Your task to perform on an android device: Open accessibility settings Image 0: 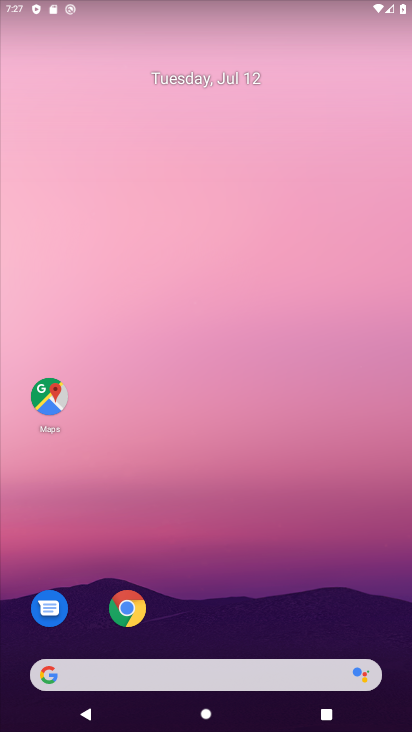
Step 0: drag from (220, 640) to (205, 203)
Your task to perform on an android device: Open accessibility settings Image 1: 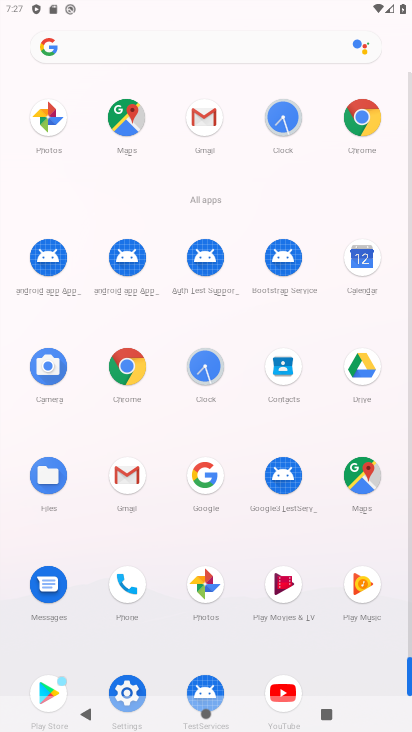
Step 1: click (119, 678)
Your task to perform on an android device: Open accessibility settings Image 2: 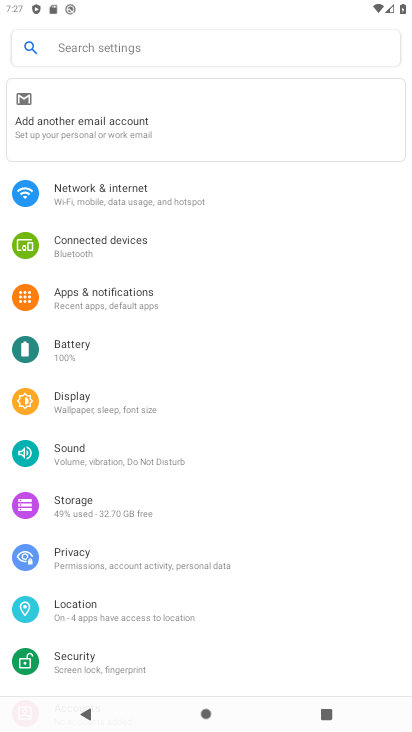
Step 2: drag from (205, 585) to (182, 211)
Your task to perform on an android device: Open accessibility settings Image 3: 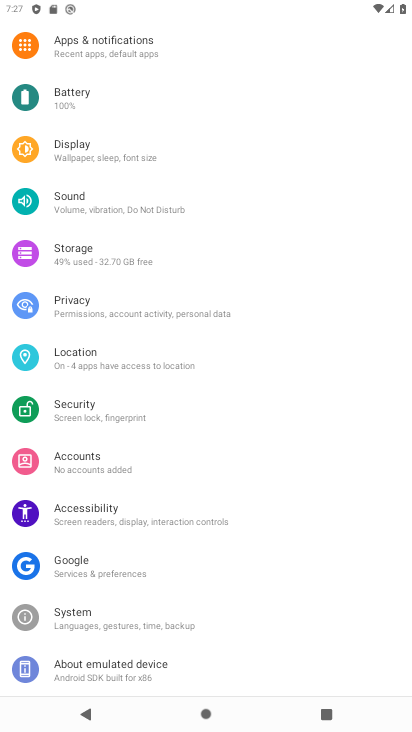
Step 3: click (124, 504)
Your task to perform on an android device: Open accessibility settings Image 4: 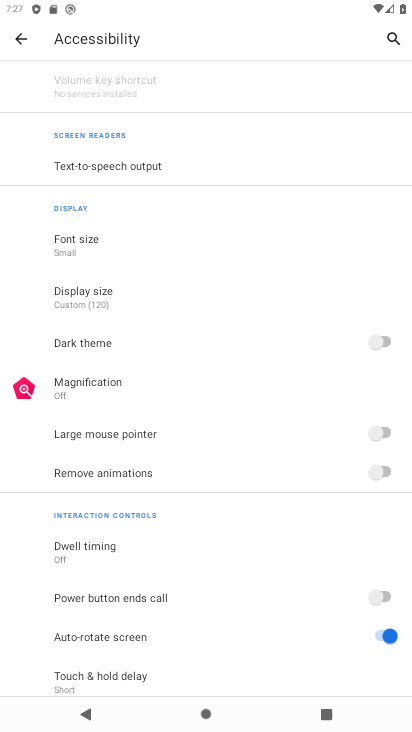
Step 4: task complete